Your task to perform on an android device: Go to CNN.com Image 0: 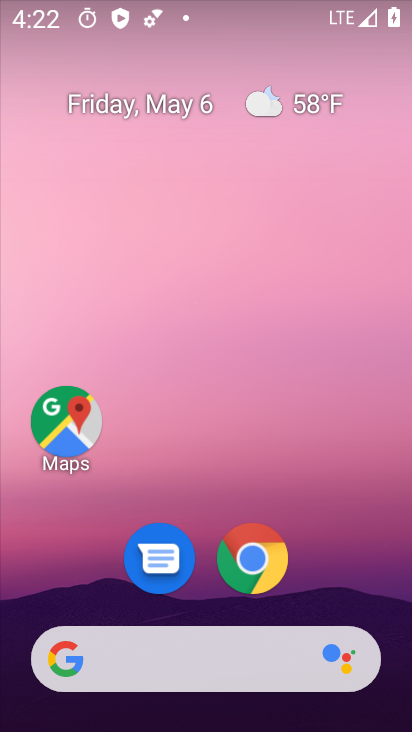
Step 0: drag from (353, 613) to (360, 15)
Your task to perform on an android device: Go to CNN.com Image 1: 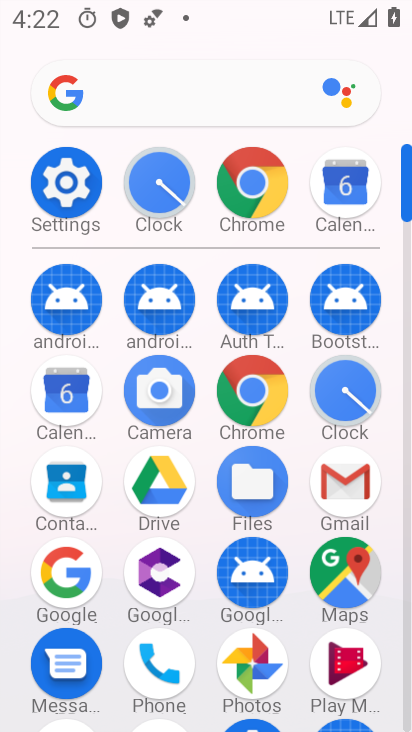
Step 1: click (264, 405)
Your task to perform on an android device: Go to CNN.com Image 2: 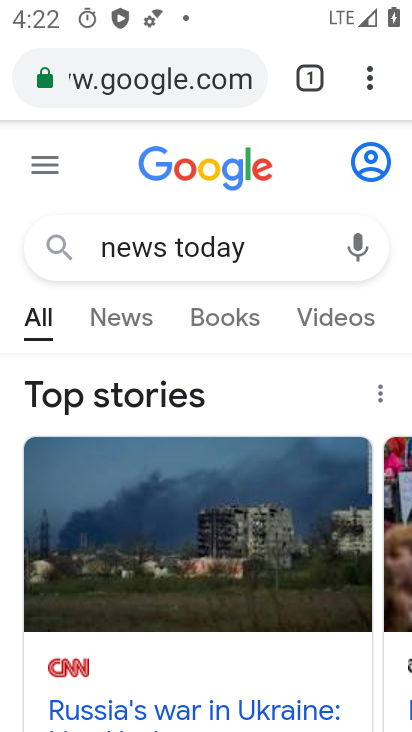
Step 2: click (224, 93)
Your task to perform on an android device: Go to CNN.com Image 3: 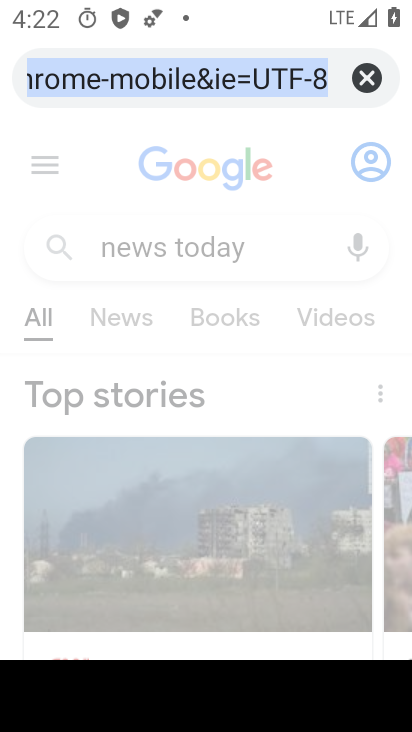
Step 3: click (367, 87)
Your task to perform on an android device: Go to CNN.com Image 4: 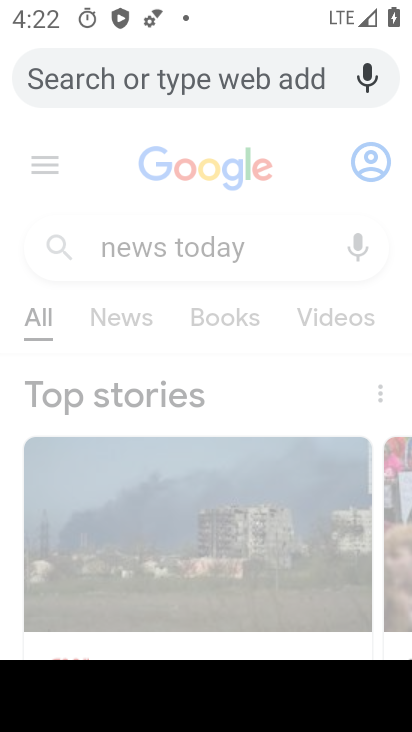
Step 4: type "cnn.com"
Your task to perform on an android device: Go to CNN.com Image 5: 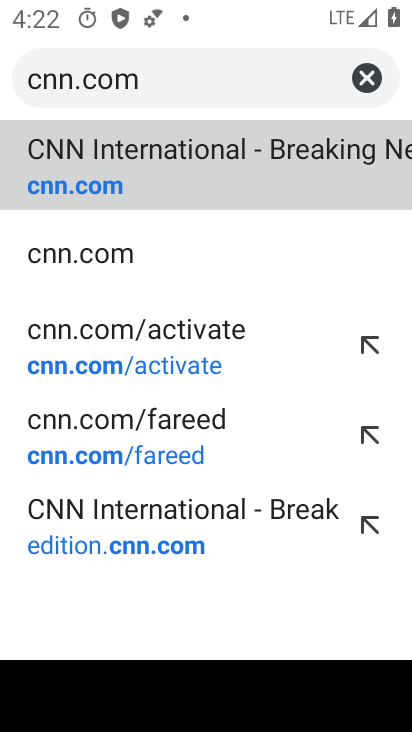
Step 5: click (131, 151)
Your task to perform on an android device: Go to CNN.com Image 6: 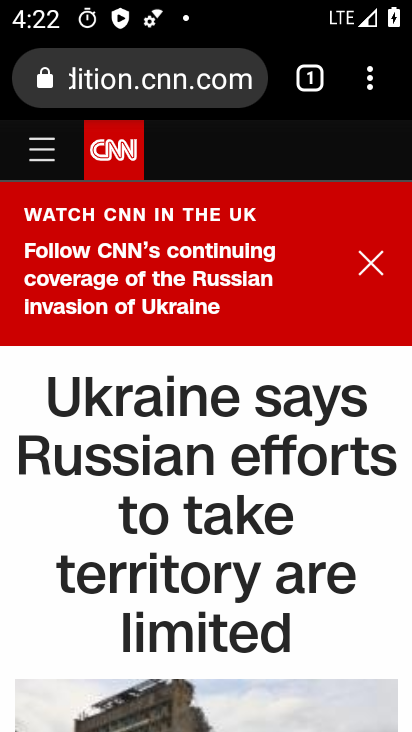
Step 6: task complete